Your task to perform on an android device: all mails in gmail Image 0: 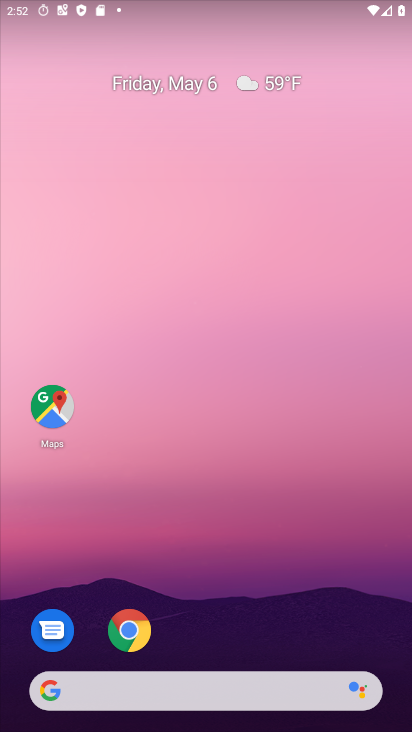
Step 0: drag from (200, 398) to (196, 108)
Your task to perform on an android device: all mails in gmail Image 1: 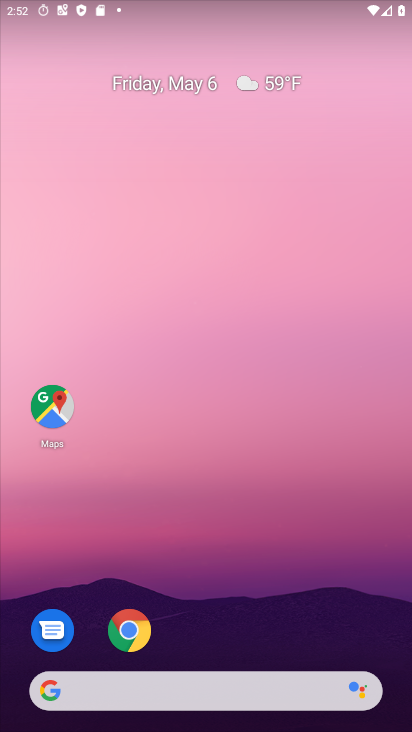
Step 1: drag from (230, 638) to (219, 97)
Your task to perform on an android device: all mails in gmail Image 2: 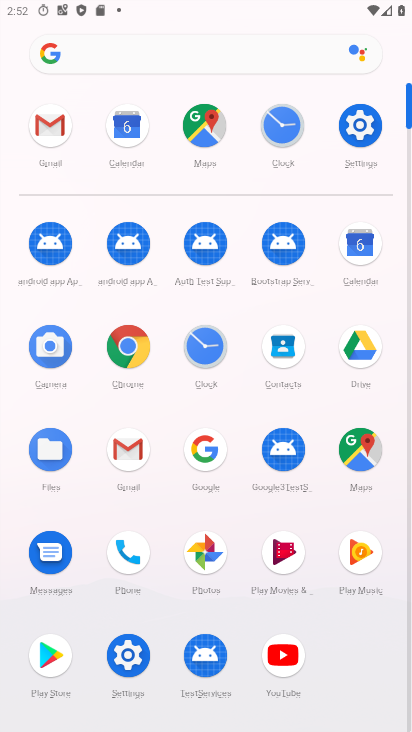
Step 2: click (40, 128)
Your task to perform on an android device: all mails in gmail Image 3: 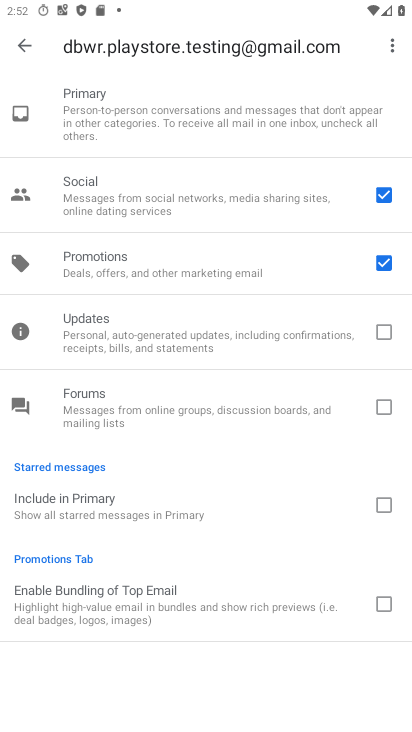
Step 3: click (28, 39)
Your task to perform on an android device: all mails in gmail Image 4: 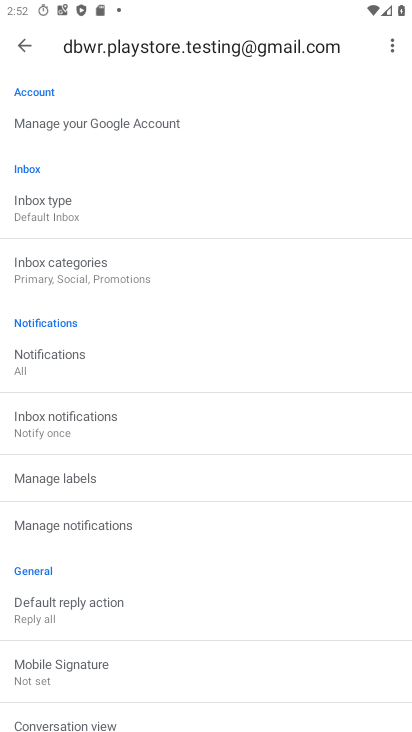
Step 4: drag from (150, 607) to (172, 330)
Your task to perform on an android device: all mails in gmail Image 5: 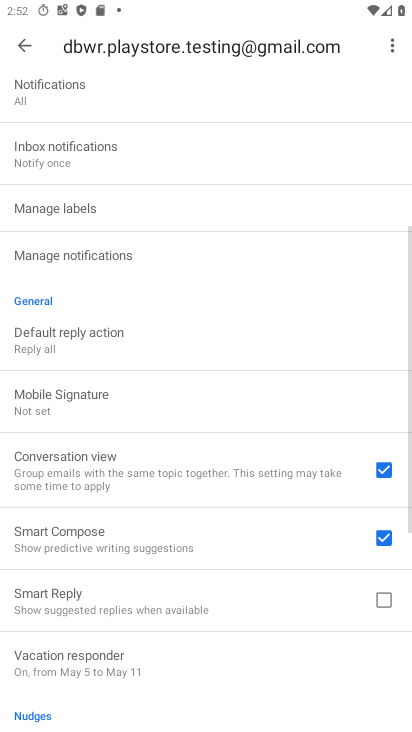
Step 5: drag from (186, 162) to (200, 493)
Your task to perform on an android device: all mails in gmail Image 6: 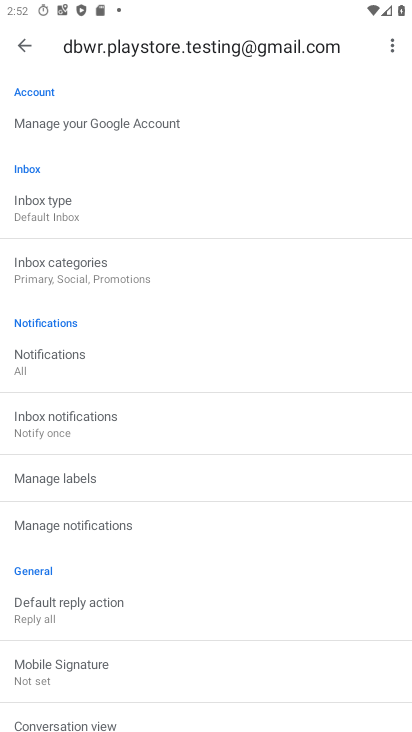
Step 6: click (23, 47)
Your task to perform on an android device: all mails in gmail Image 7: 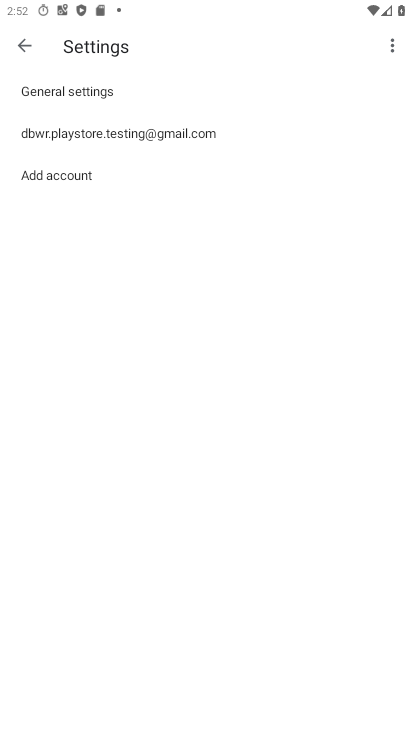
Step 7: click (25, 48)
Your task to perform on an android device: all mails in gmail Image 8: 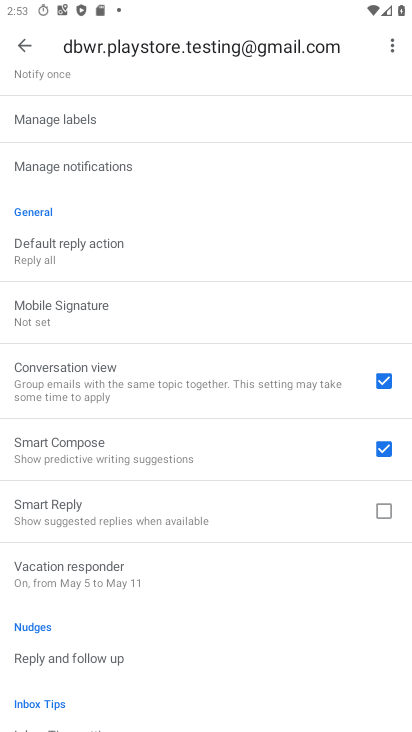
Step 8: click (19, 35)
Your task to perform on an android device: all mails in gmail Image 9: 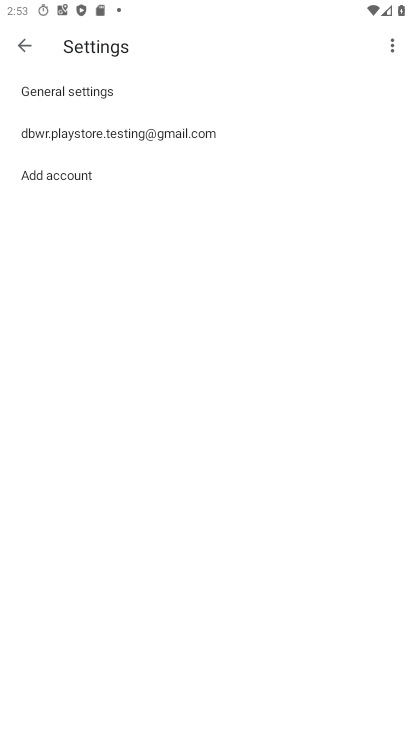
Step 9: click (18, 36)
Your task to perform on an android device: all mails in gmail Image 10: 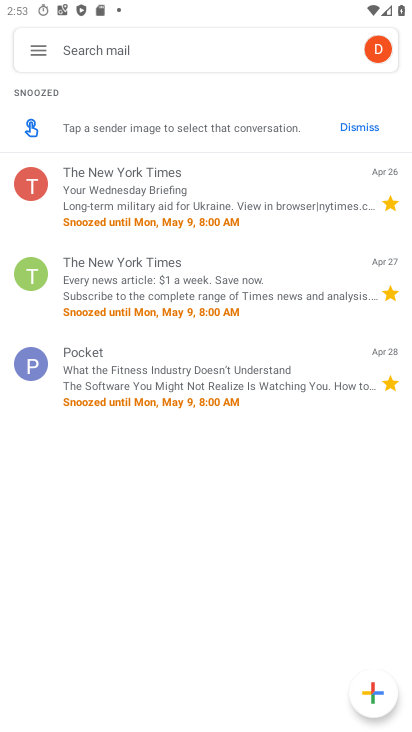
Step 10: click (28, 54)
Your task to perform on an android device: all mails in gmail Image 11: 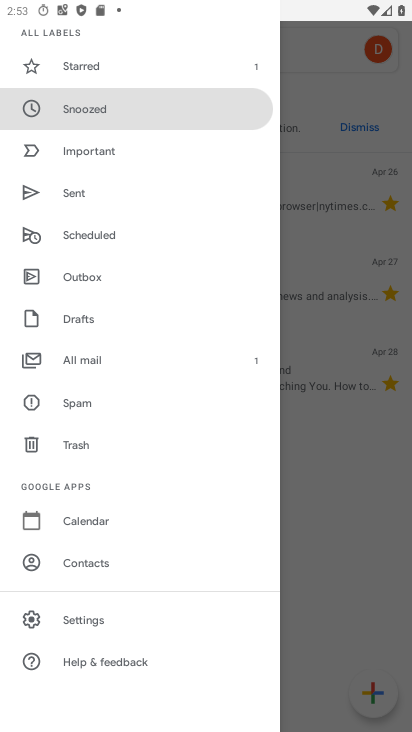
Step 11: click (81, 347)
Your task to perform on an android device: all mails in gmail Image 12: 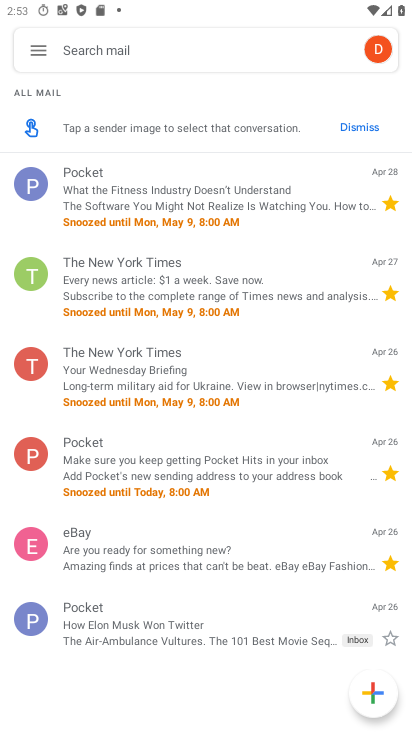
Step 12: task complete